Your task to perform on an android device: Add razer huntsman to the cart on newegg, then select checkout. Image 0: 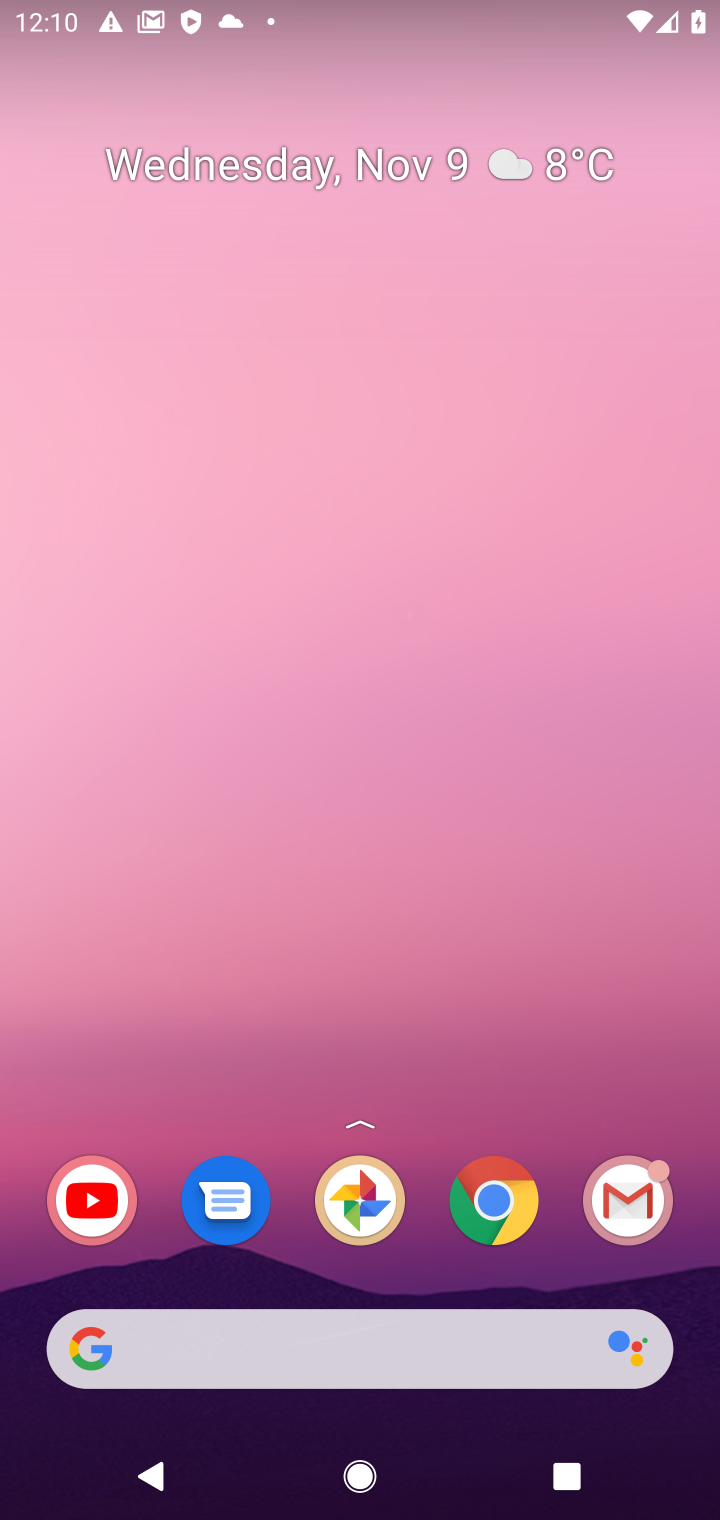
Step 0: click (481, 1347)
Your task to perform on an android device: Add razer huntsman to the cart on newegg, then select checkout. Image 1: 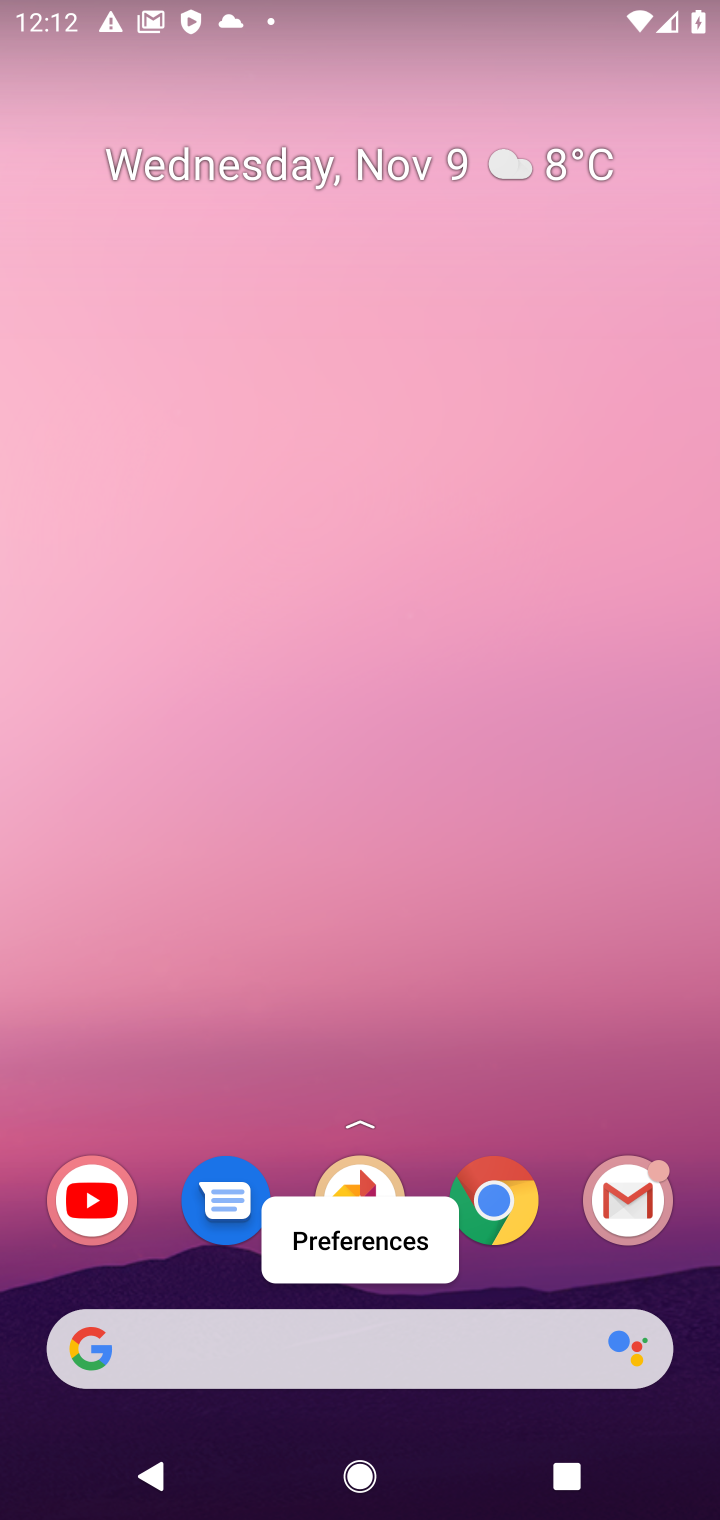
Step 1: click (503, 1353)
Your task to perform on an android device: Add razer huntsman to the cart on newegg, then select checkout. Image 2: 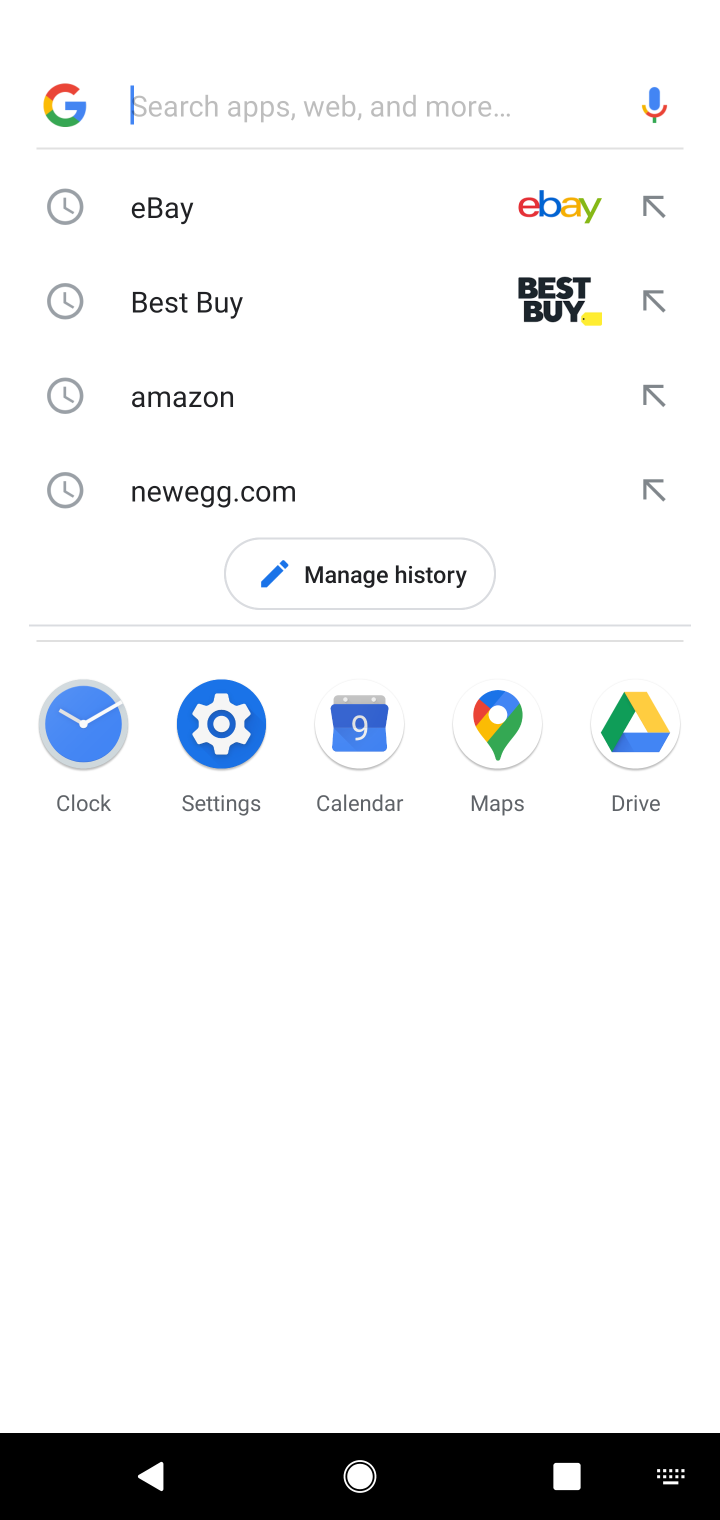
Step 2: type "newegg"
Your task to perform on an android device: Add razer huntsman to the cart on newegg, then select checkout. Image 3: 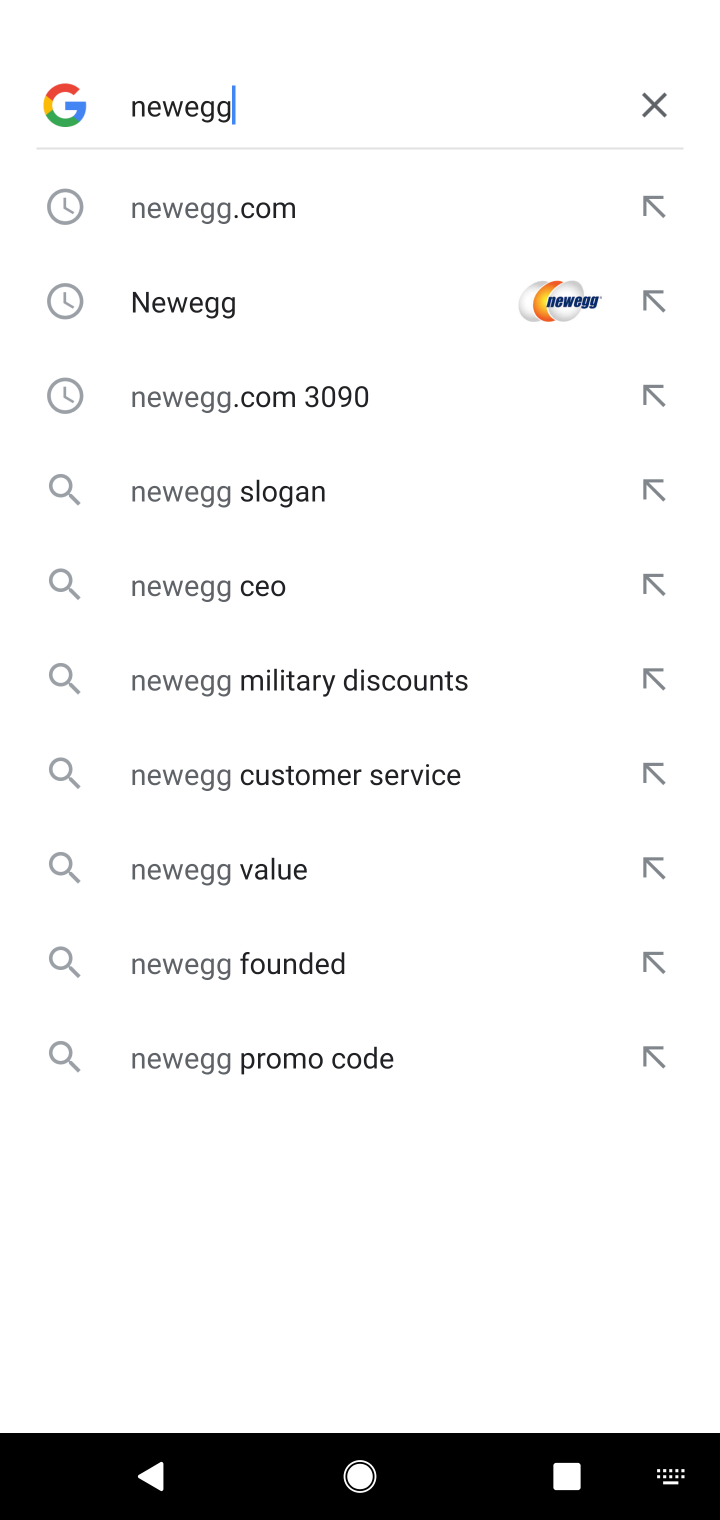
Step 3: click (278, 492)
Your task to perform on an android device: Add razer huntsman to the cart on newegg, then select checkout. Image 4: 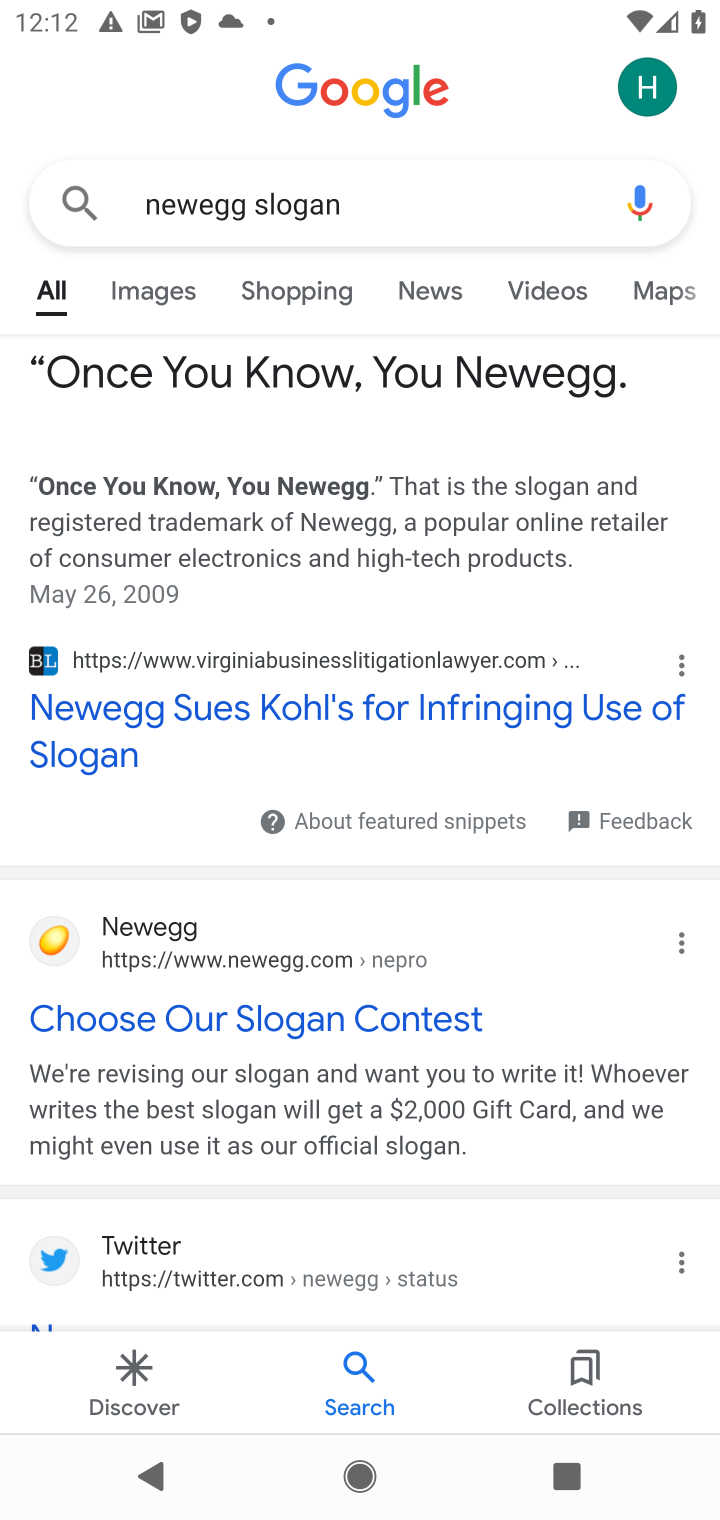
Step 4: click (241, 716)
Your task to perform on an android device: Add razer huntsman to the cart on newegg, then select checkout. Image 5: 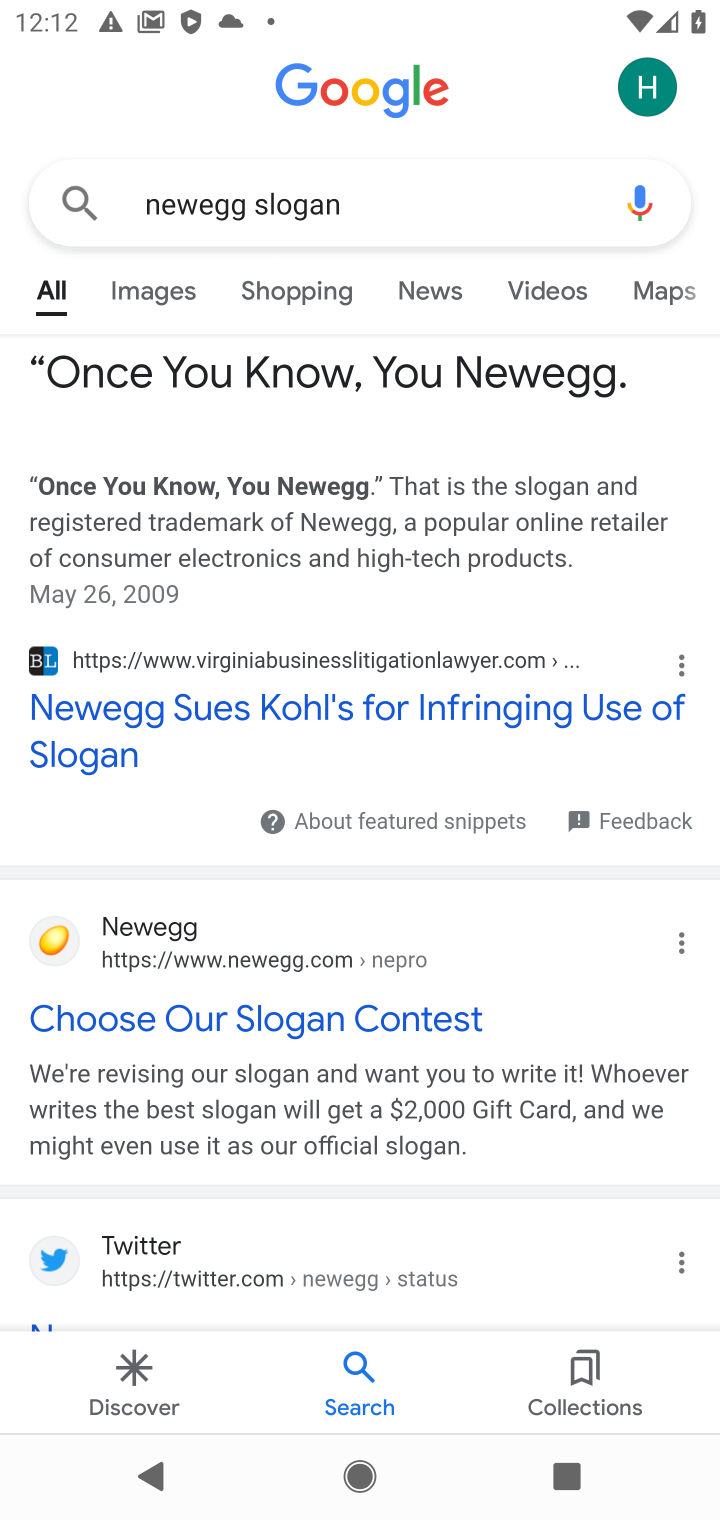
Step 5: task complete